Your task to perform on an android device: toggle sleep mode Image 0: 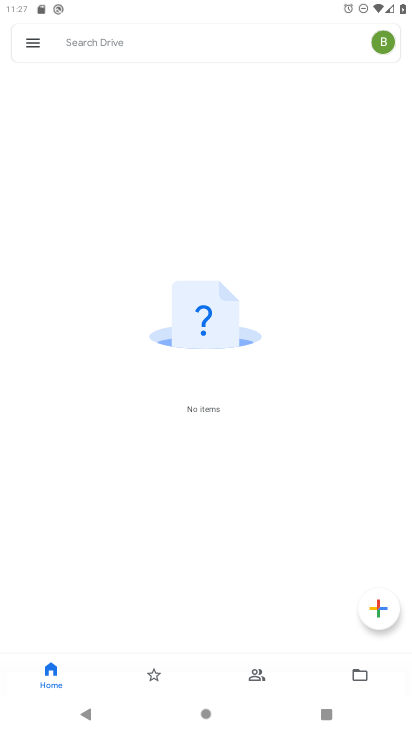
Step 0: press home button
Your task to perform on an android device: toggle sleep mode Image 1: 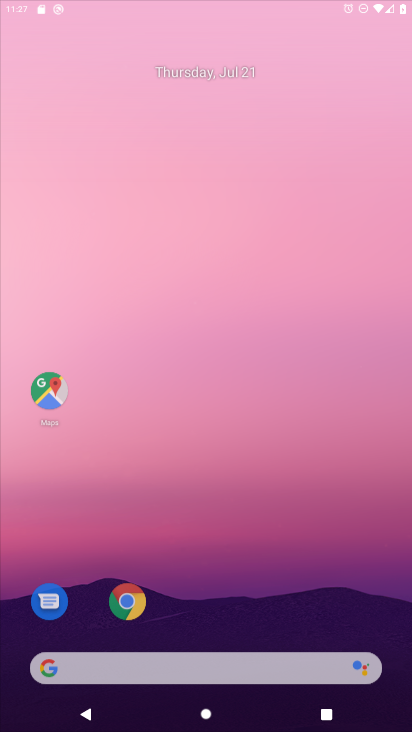
Step 1: drag from (395, 690) to (246, 14)
Your task to perform on an android device: toggle sleep mode Image 2: 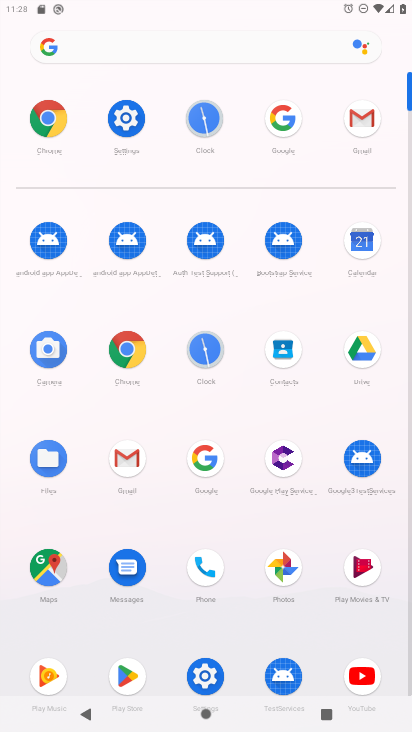
Step 2: click (206, 674)
Your task to perform on an android device: toggle sleep mode Image 3: 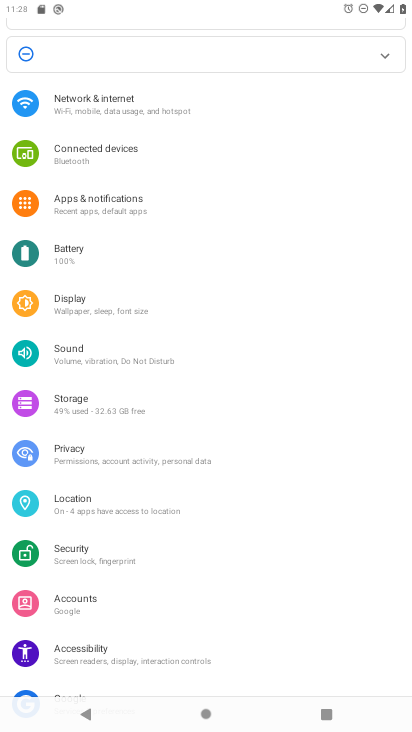
Step 3: task complete